Your task to perform on an android device: Open maps Image 0: 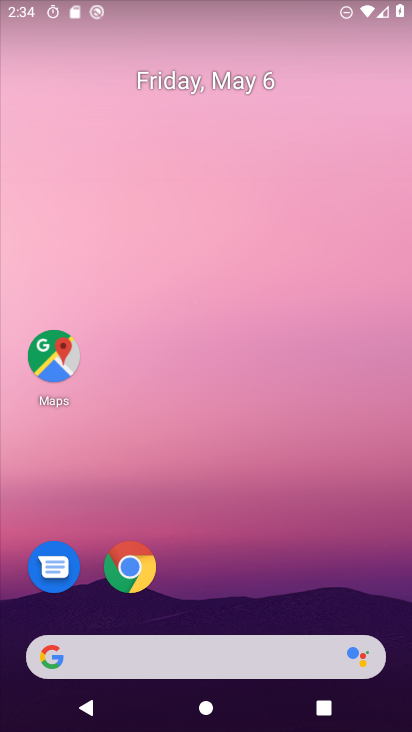
Step 0: drag from (251, 695) to (231, 192)
Your task to perform on an android device: Open maps Image 1: 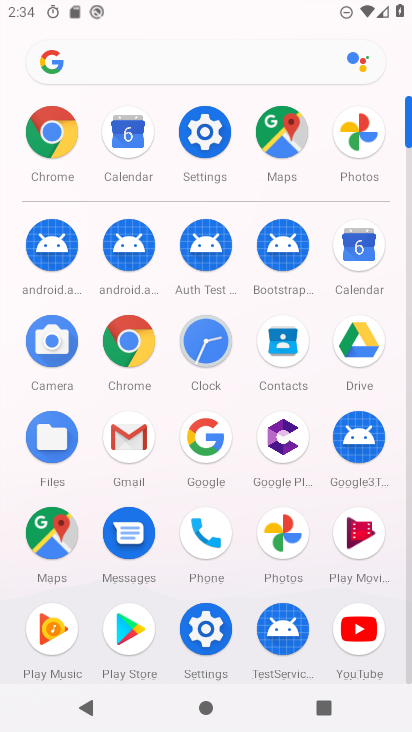
Step 1: click (255, 131)
Your task to perform on an android device: Open maps Image 2: 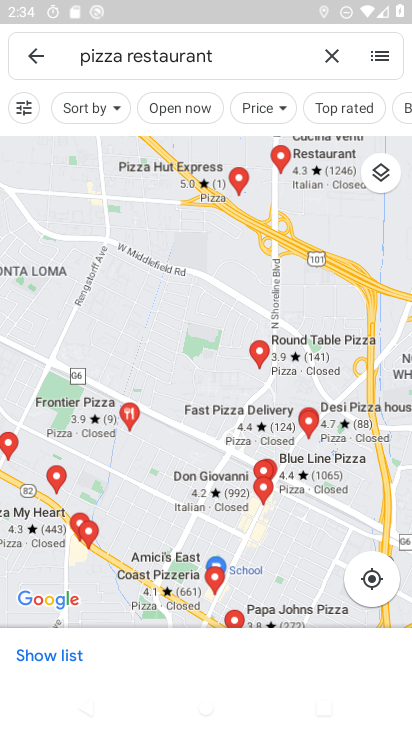
Step 2: click (34, 62)
Your task to perform on an android device: Open maps Image 3: 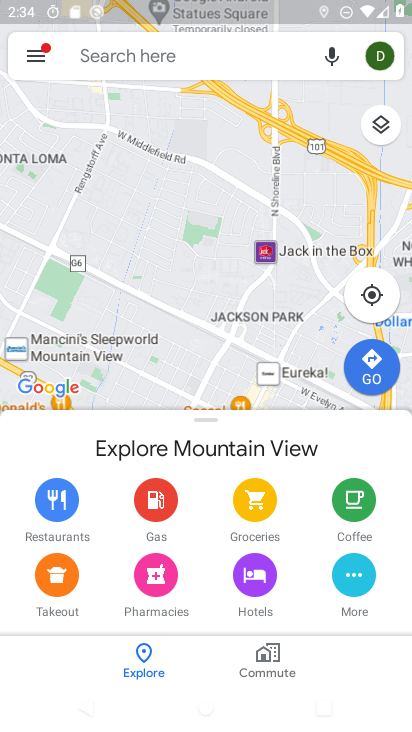
Step 3: task complete